Your task to perform on an android device: show emergency info Image 0: 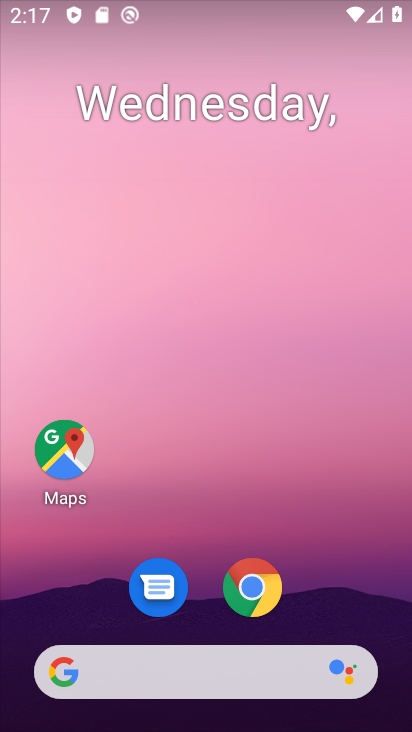
Step 0: drag from (359, 643) to (309, 353)
Your task to perform on an android device: show emergency info Image 1: 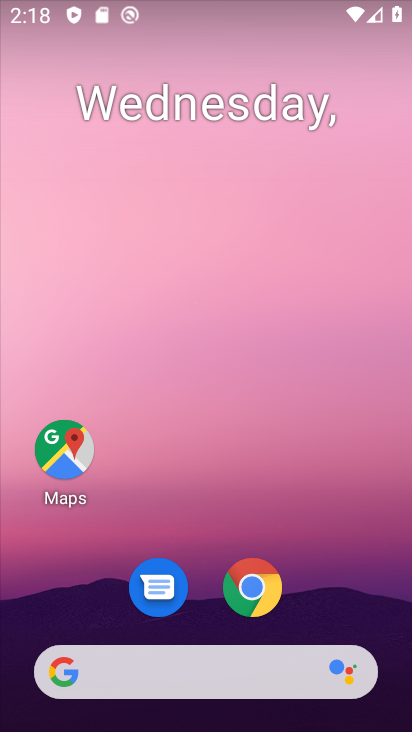
Step 1: drag from (334, 635) to (267, 169)
Your task to perform on an android device: show emergency info Image 2: 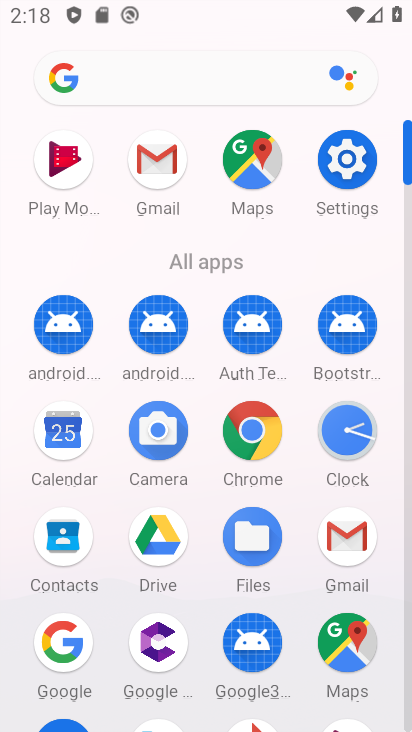
Step 2: click (334, 169)
Your task to perform on an android device: show emergency info Image 3: 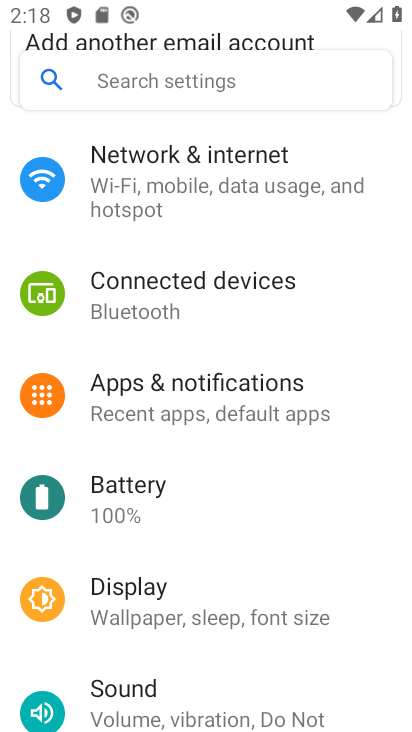
Step 3: drag from (209, 691) to (210, 201)
Your task to perform on an android device: show emergency info Image 4: 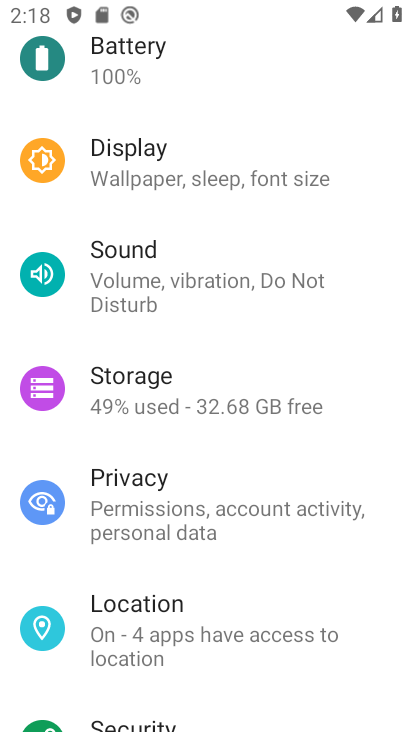
Step 4: drag from (277, 661) to (220, 319)
Your task to perform on an android device: show emergency info Image 5: 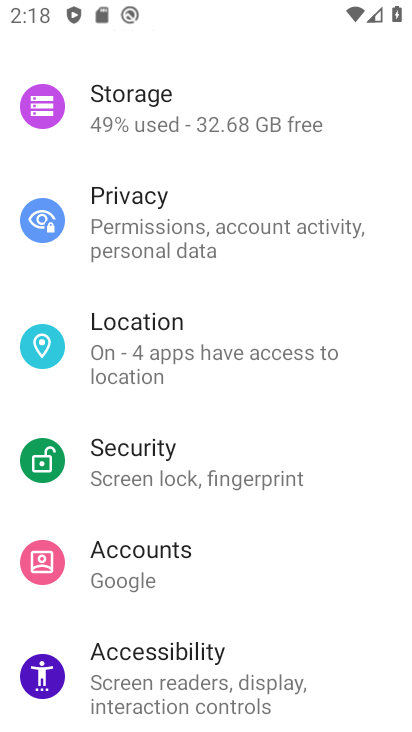
Step 5: drag from (236, 600) to (175, 253)
Your task to perform on an android device: show emergency info Image 6: 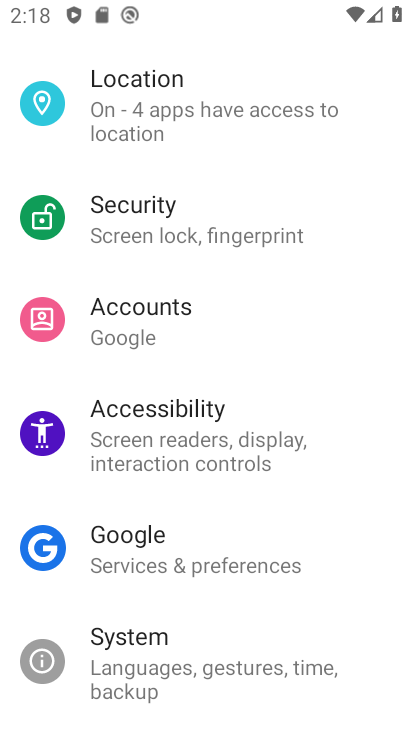
Step 6: drag from (263, 654) to (237, 405)
Your task to perform on an android device: show emergency info Image 7: 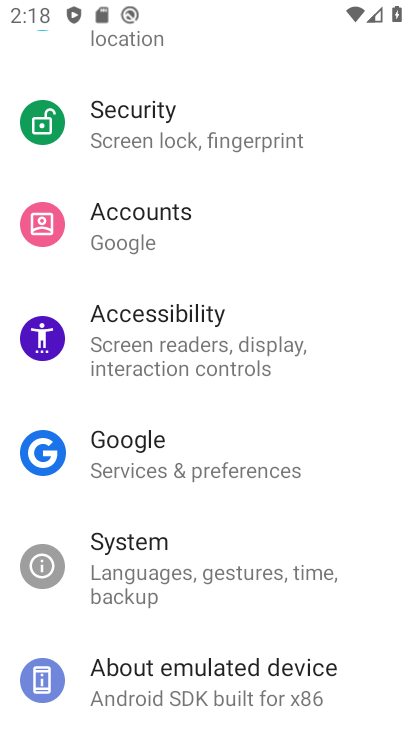
Step 7: click (261, 677)
Your task to perform on an android device: show emergency info Image 8: 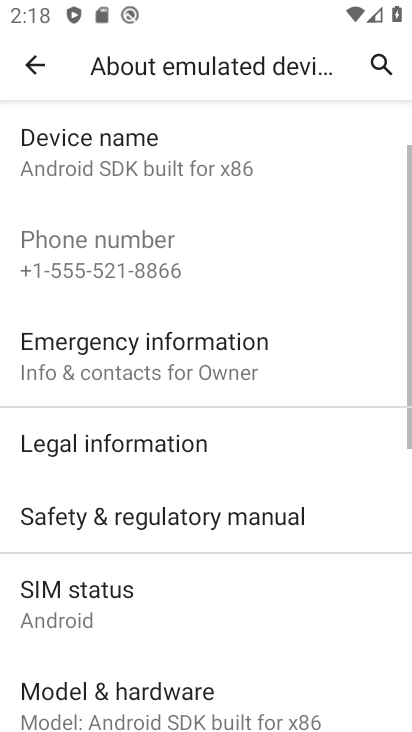
Step 8: click (248, 357)
Your task to perform on an android device: show emergency info Image 9: 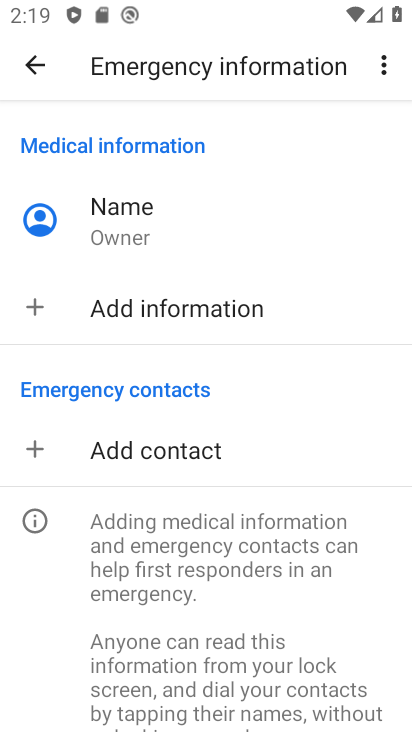
Step 9: task complete